Your task to perform on an android device: clear history in the chrome app Image 0: 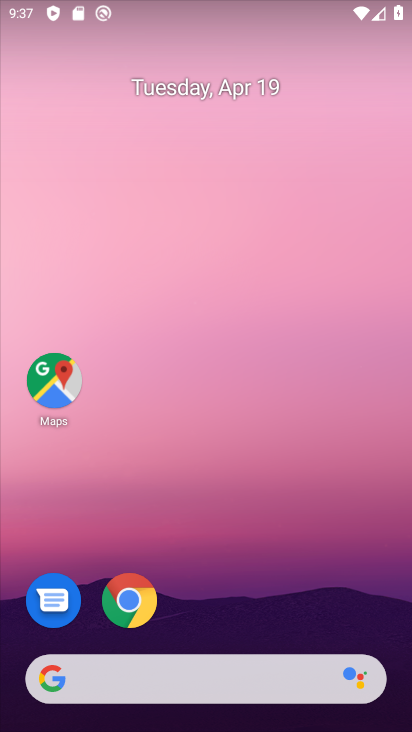
Step 0: drag from (293, 623) to (261, 100)
Your task to perform on an android device: clear history in the chrome app Image 1: 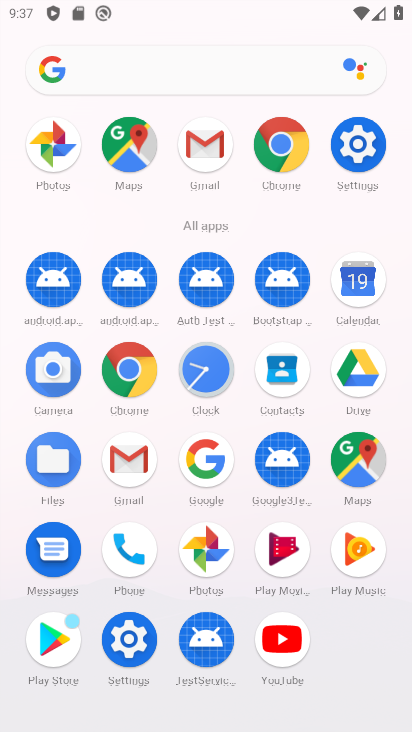
Step 1: click (279, 144)
Your task to perform on an android device: clear history in the chrome app Image 2: 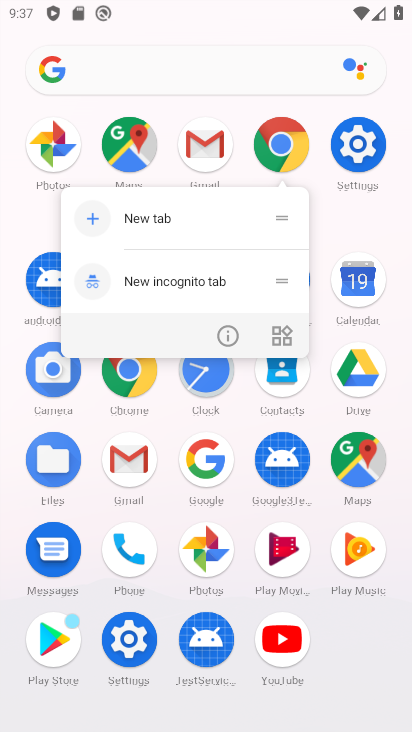
Step 2: click (281, 146)
Your task to perform on an android device: clear history in the chrome app Image 3: 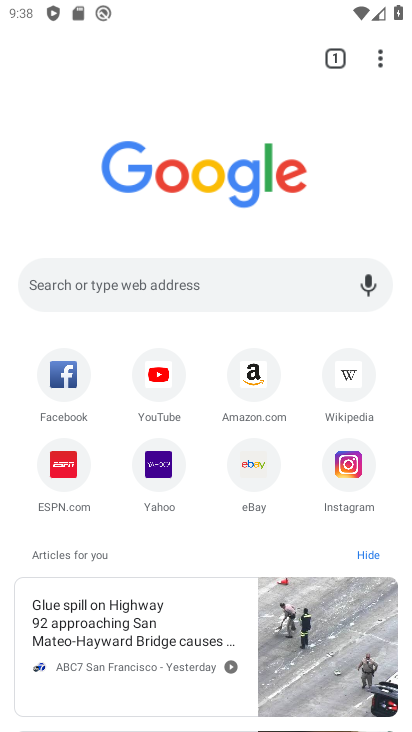
Step 3: click (376, 55)
Your task to perform on an android device: clear history in the chrome app Image 4: 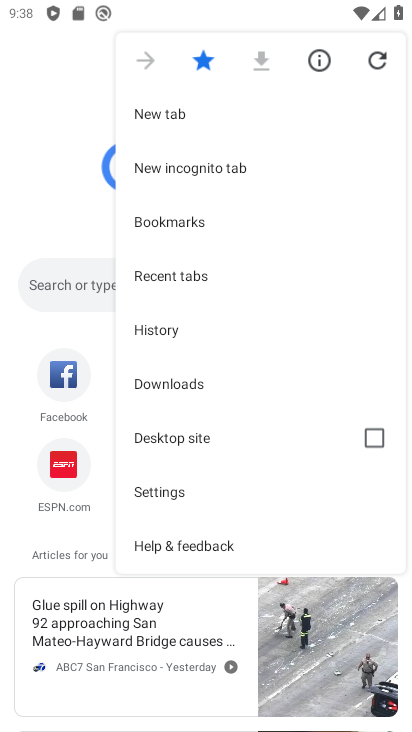
Step 4: click (207, 319)
Your task to perform on an android device: clear history in the chrome app Image 5: 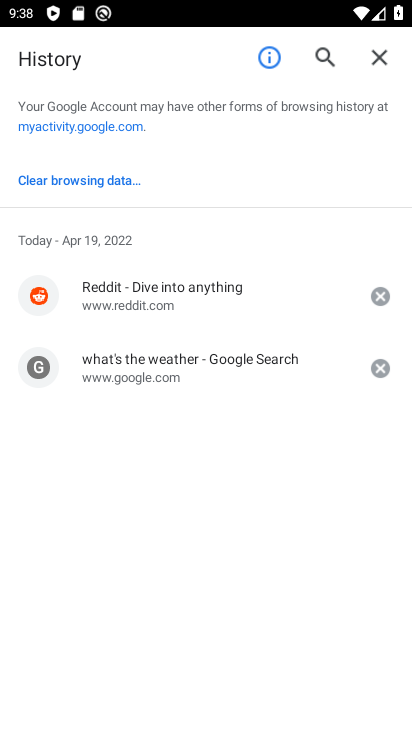
Step 5: click (95, 181)
Your task to perform on an android device: clear history in the chrome app Image 6: 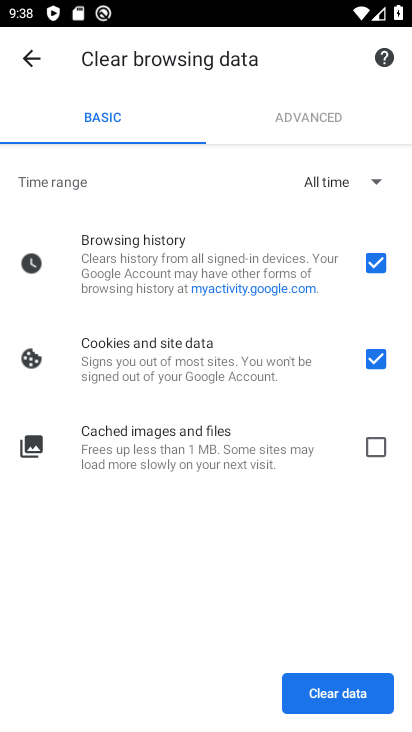
Step 6: click (352, 689)
Your task to perform on an android device: clear history in the chrome app Image 7: 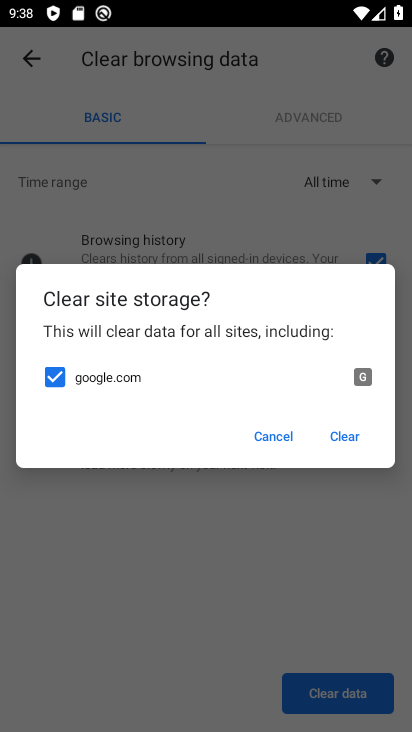
Step 7: click (344, 430)
Your task to perform on an android device: clear history in the chrome app Image 8: 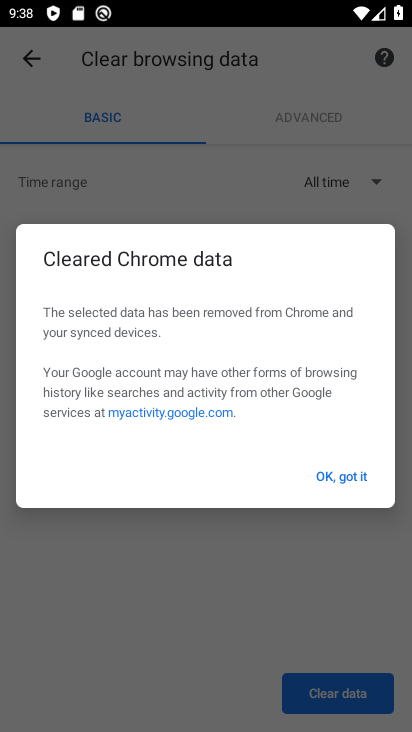
Step 8: click (353, 479)
Your task to perform on an android device: clear history in the chrome app Image 9: 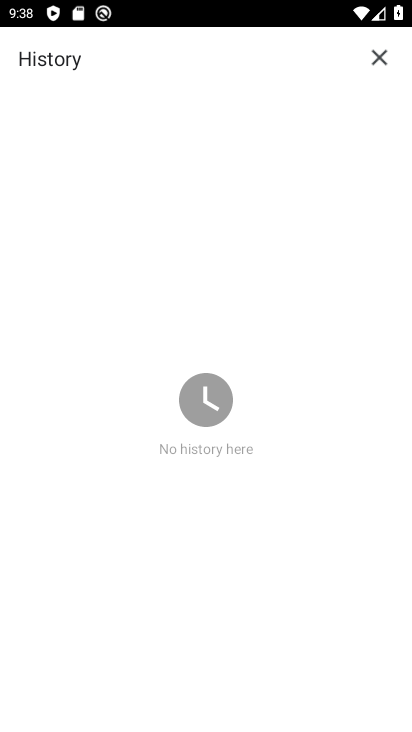
Step 9: task complete